Your task to perform on an android device: When is my next meeting? Image 0: 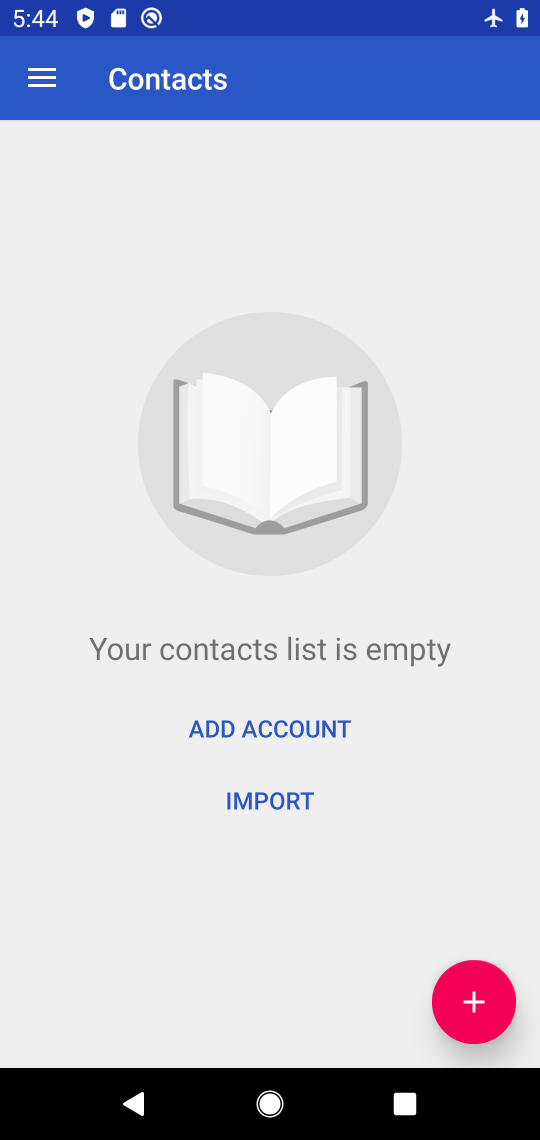
Step 0: press home button
Your task to perform on an android device: When is my next meeting? Image 1: 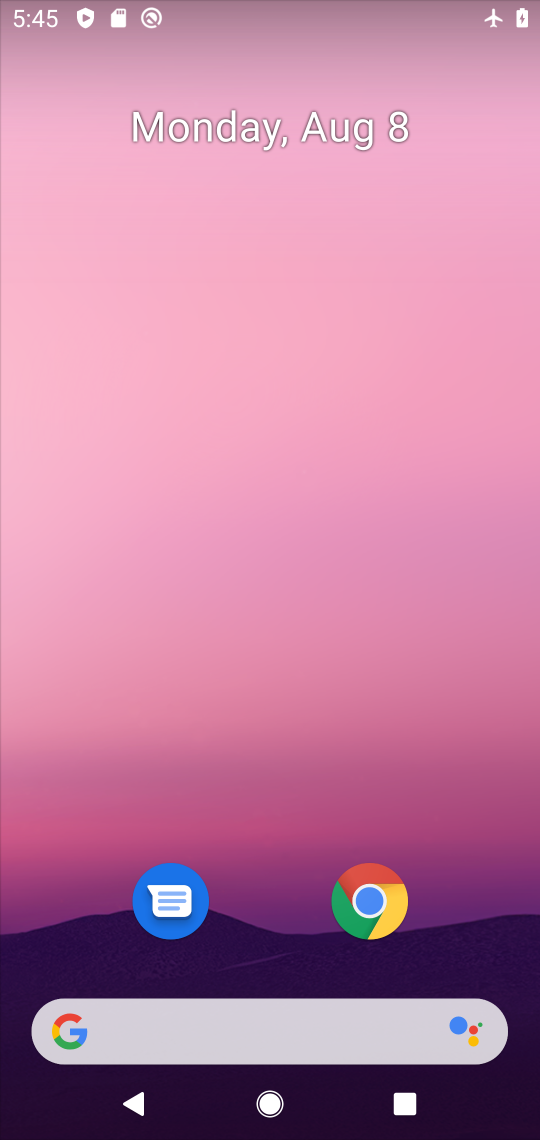
Step 1: drag from (505, 956) to (357, 0)
Your task to perform on an android device: When is my next meeting? Image 2: 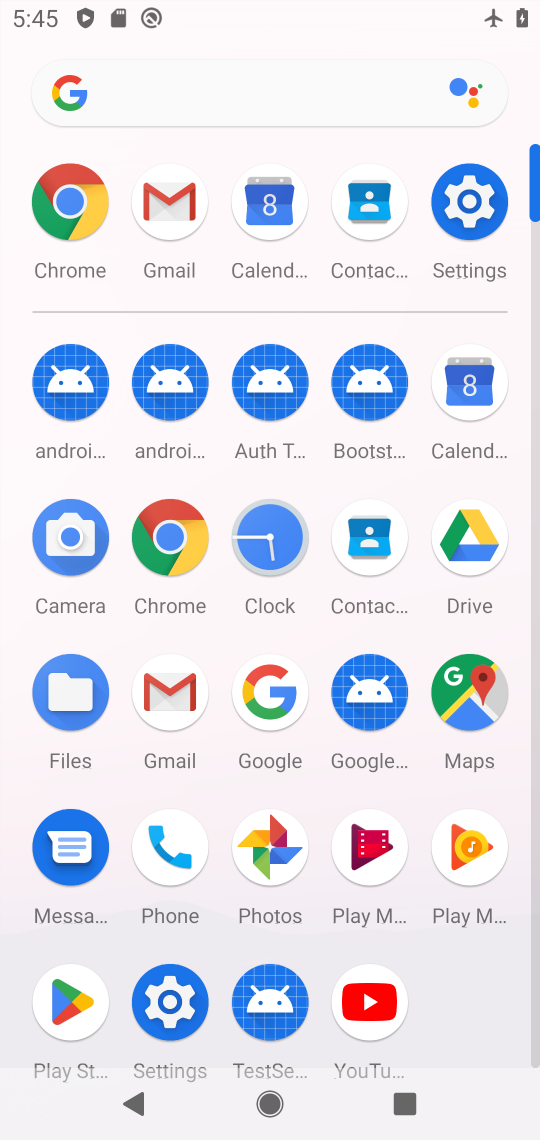
Step 2: click (287, 543)
Your task to perform on an android device: When is my next meeting? Image 3: 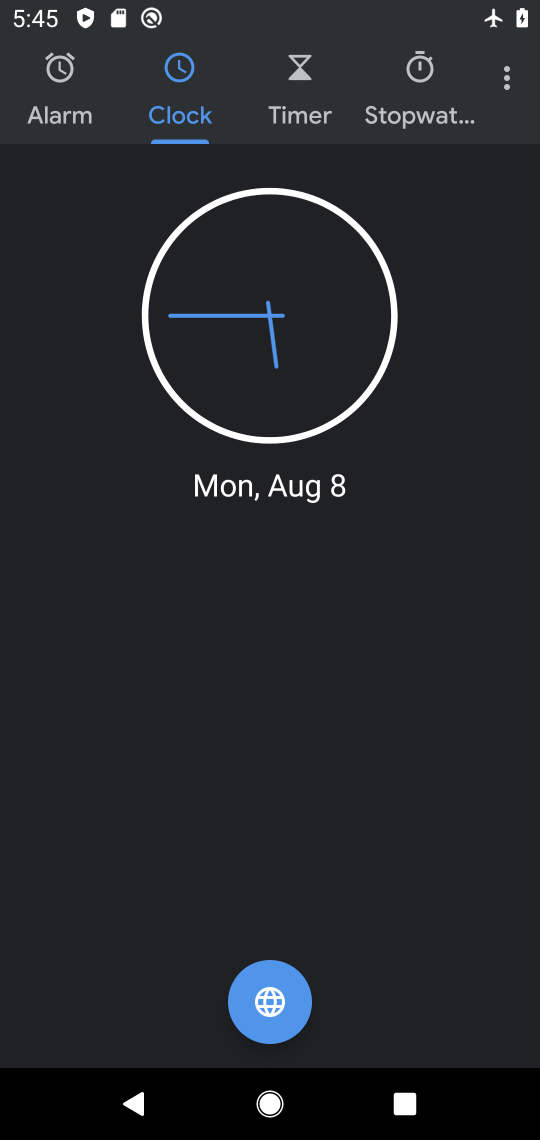
Step 3: press back button
Your task to perform on an android device: When is my next meeting? Image 4: 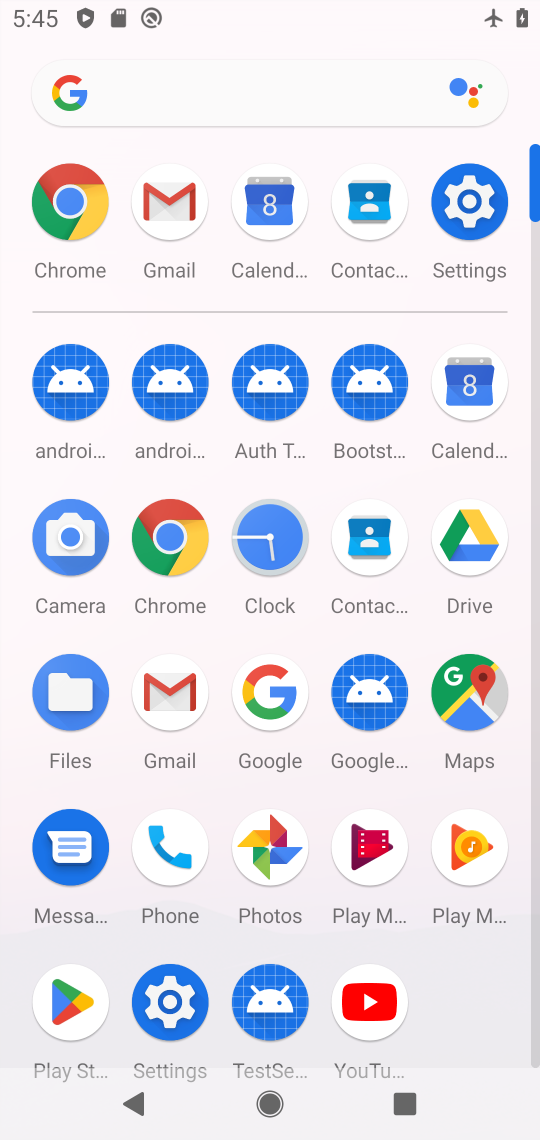
Step 4: click (465, 370)
Your task to perform on an android device: When is my next meeting? Image 5: 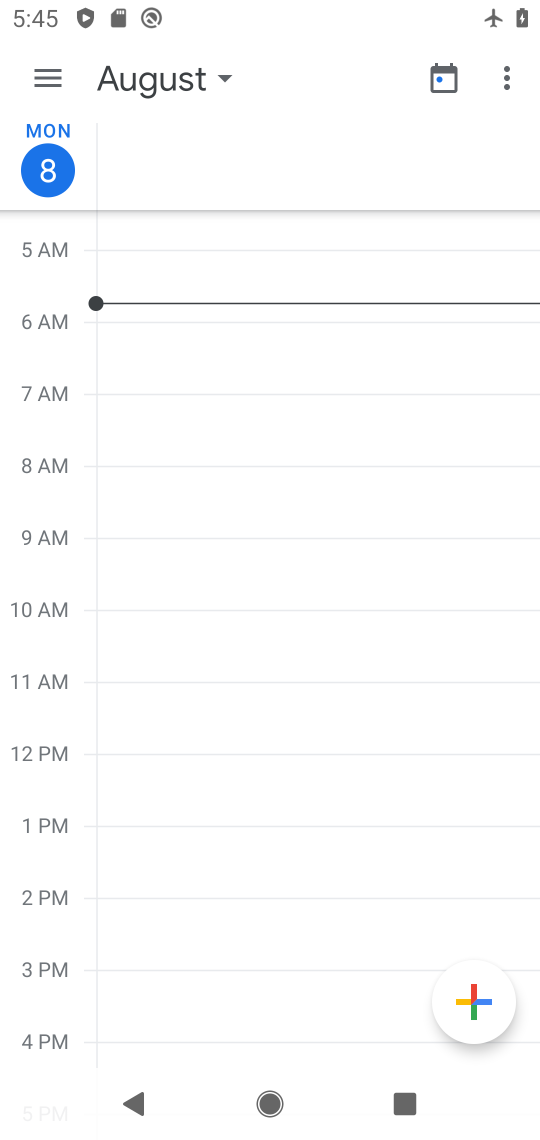
Step 5: click (55, 75)
Your task to perform on an android device: When is my next meeting? Image 6: 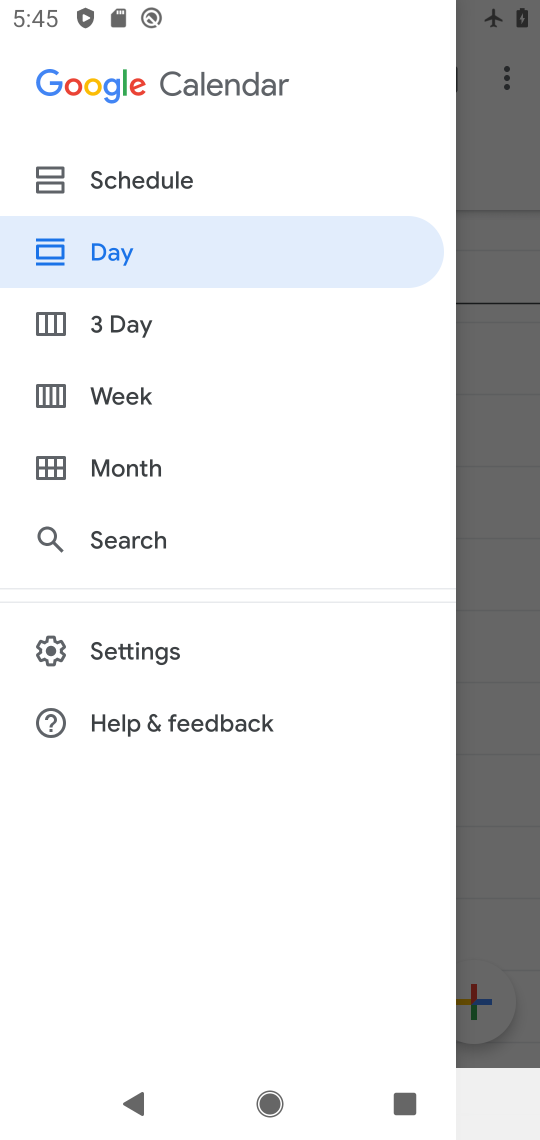
Step 6: click (140, 167)
Your task to perform on an android device: When is my next meeting? Image 7: 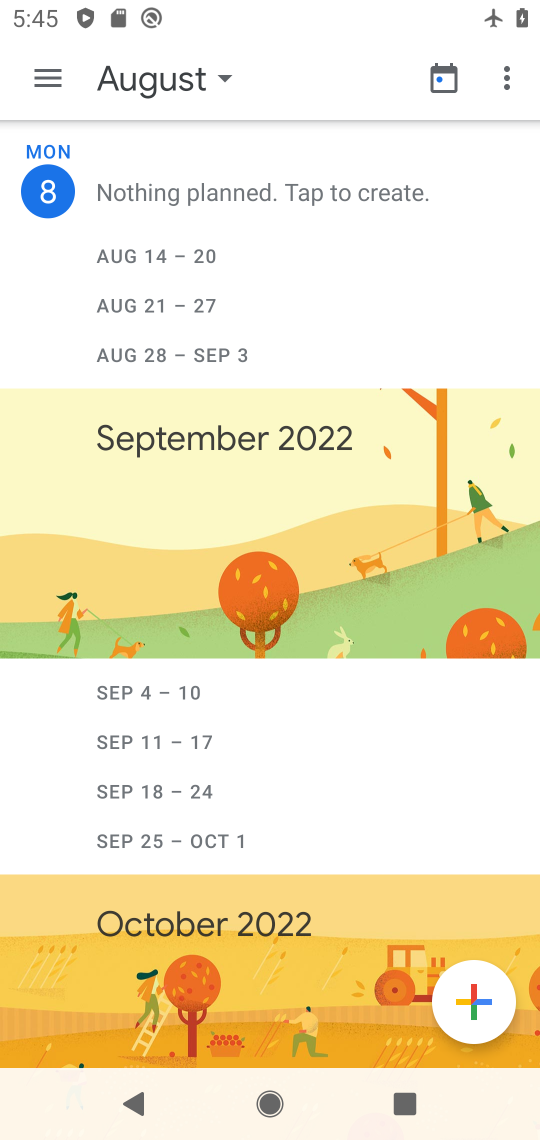
Step 7: task complete